Your task to perform on an android device: open a bookmark in the chrome app Image 0: 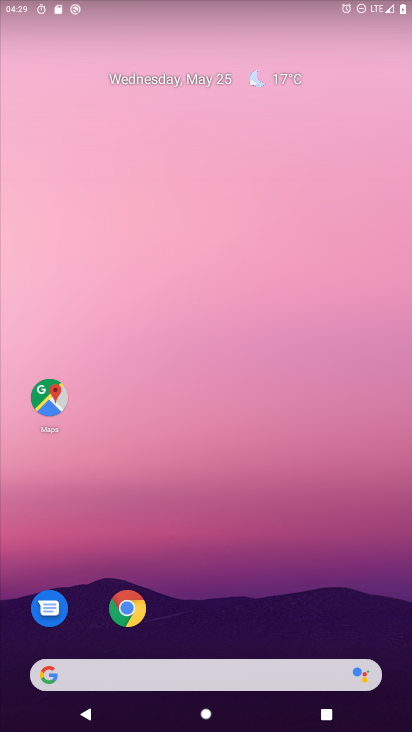
Step 0: drag from (205, 605) to (288, 56)
Your task to perform on an android device: open a bookmark in the chrome app Image 1: 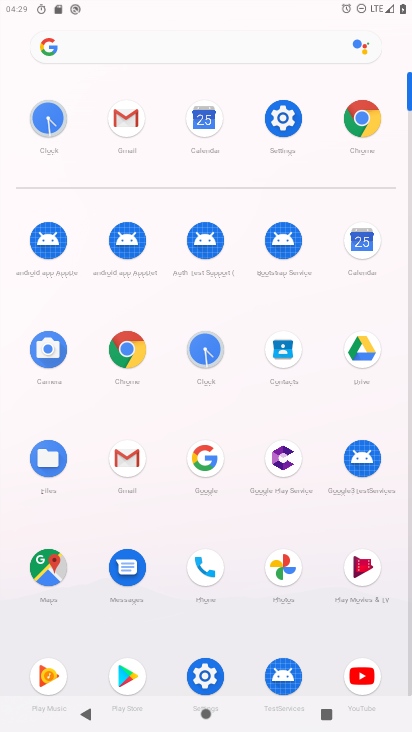
Step 1: click (126, 349)
Your task to perform on an android device: open a bookmark in the chrome app Image 2: 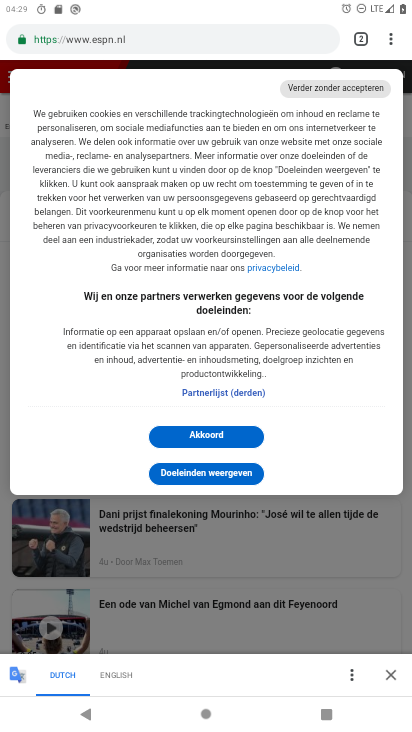
Step 2: click (390, 34)
Your task to perform on an android device: open a bookmark in the chrome app Image 3: 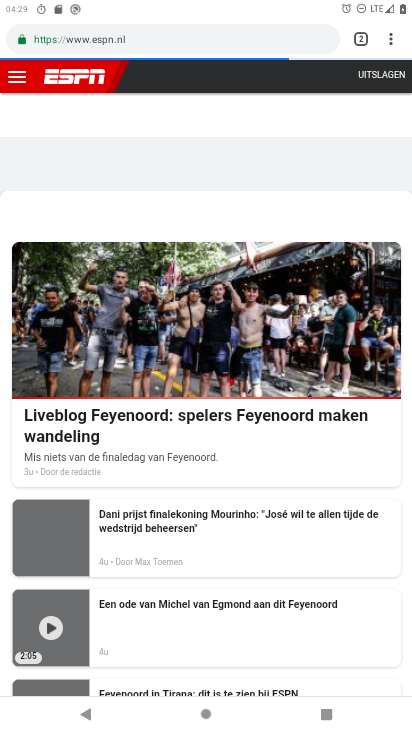
Step 3: drag from (394, 33) to (273, 152)
Your task to perform on an android device: open a bookmark in the chrome app Image 4: 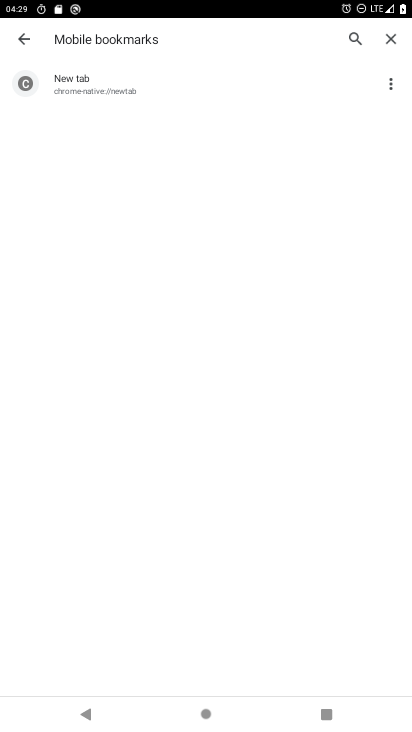
Step 4: click (70, 81)
Your task to perform on an android device: open a bookmark in the chrome app Image 5: 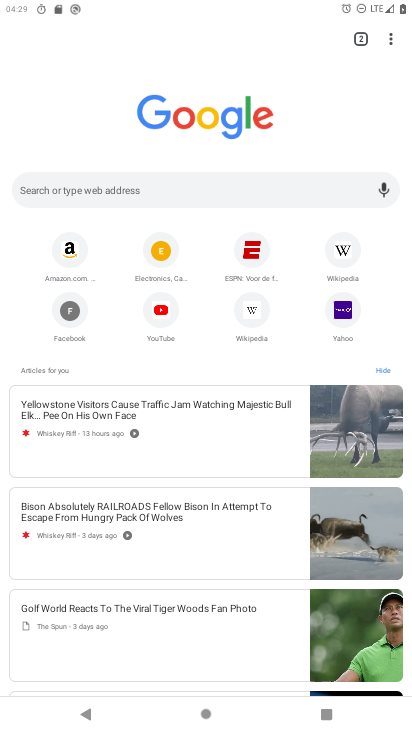
Step 5: task complete